Your task to perform on an android device: turn smart compose on in the gmail app Image 0: 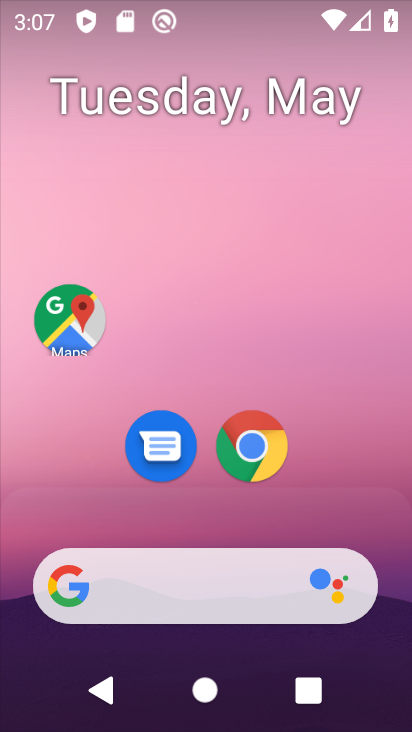
Step 0: drag from (210, 726) to (206, 142)
Your task to perform on an android device: turn smart compose on in the gmail app Image 1: 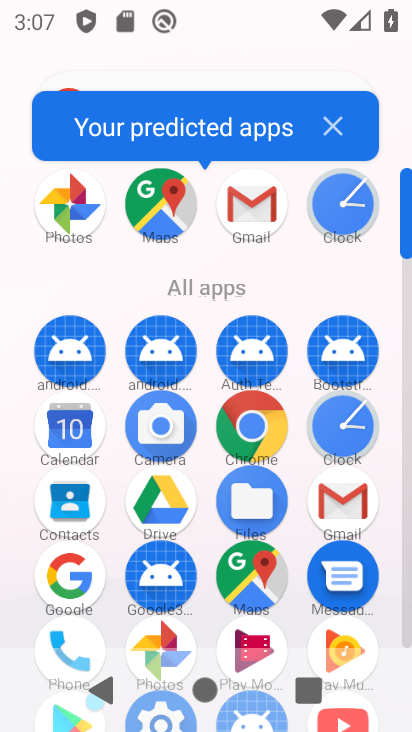
Step 1: click (346, 501)
Your task to perform on an android device: turn smart compose on in the gmail app Image 2: 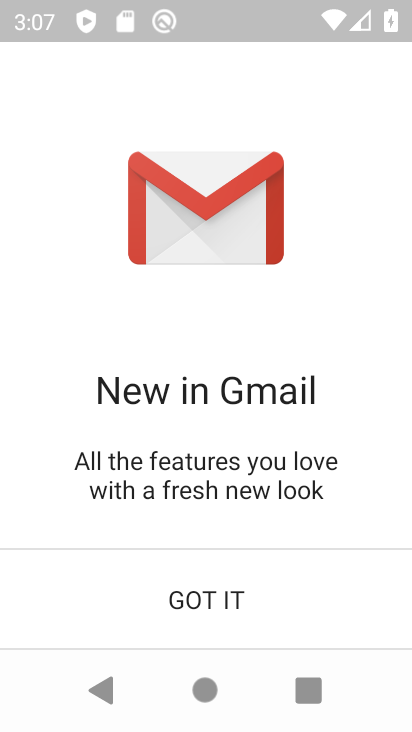
Step 2: click (225, 590)
Your task to perform on an android device: turn smart compose on in the gmail app Image 3: 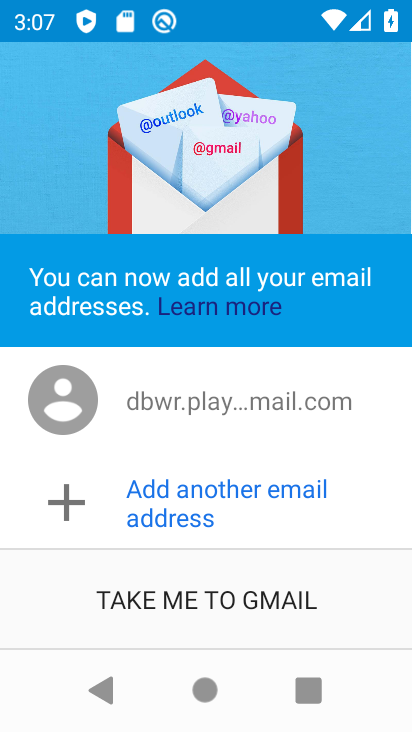
Step 3: click (227, 600)
Your task to perform on an android device: turn smart compose on in the gmail app Image 4: 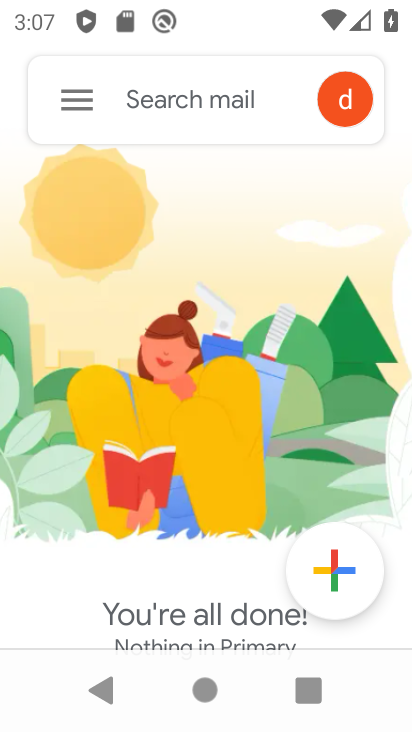
Step 4: click (77, 102)
Your task to perform on an android device: turn smart compose on in the gmail app Image 5: 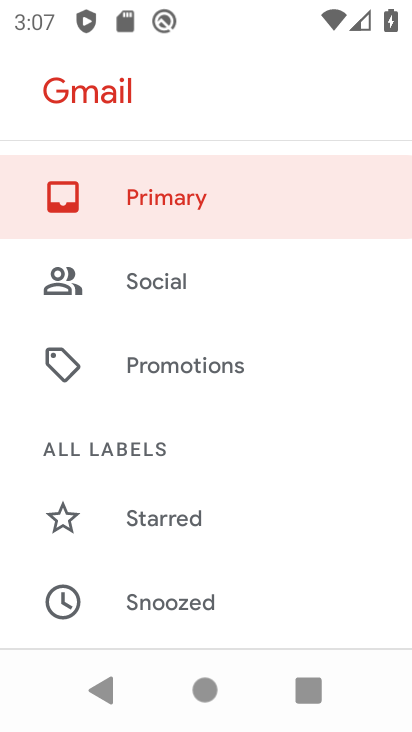
Step 5: drag from (187, 620) to (198, 339)
Your task to perform on an android device: turn smart compose on in the gmail app Image 6: 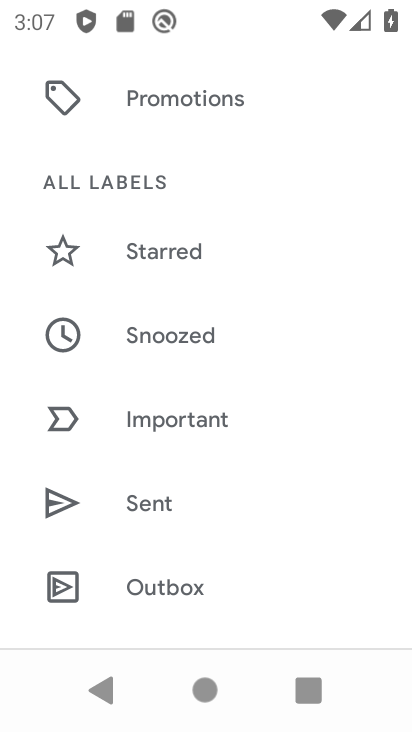
Step 6: drag from (239, 620) to (240, 345)
Your task to perform on an android device: turn smart compose on in the gmail app Image 7: 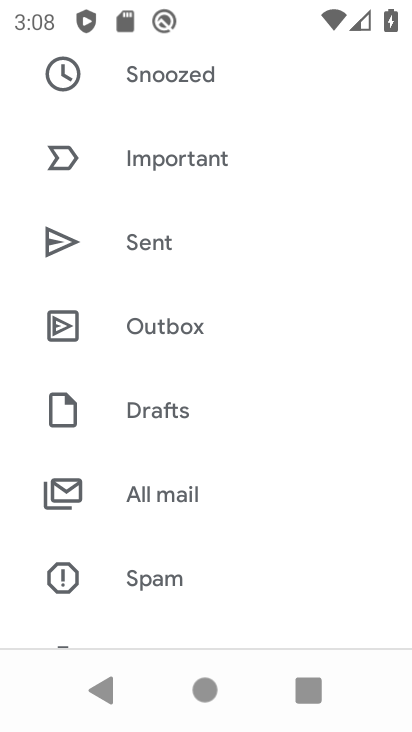
Step 7: drag from (170, 617) to (188, 215)
Your task to perform on an android device: turn smart compose on in the gmail app Image 8: 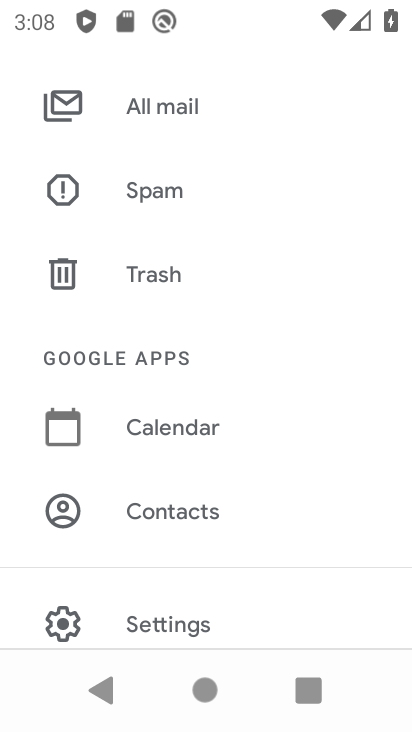
Step 8: click (167, 618)
Your task to perform on an android device: turn smart compose on in the gmail app Image 9: 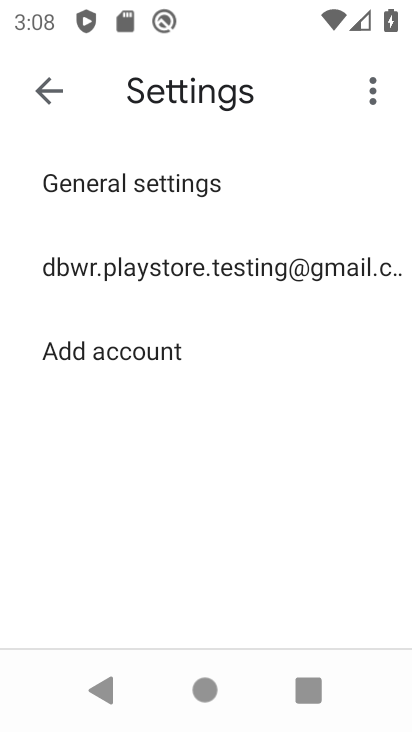
Step 9: click (150, 266)
Your task to perform on an android device: turn smart compose on in the gmail app Image 10: 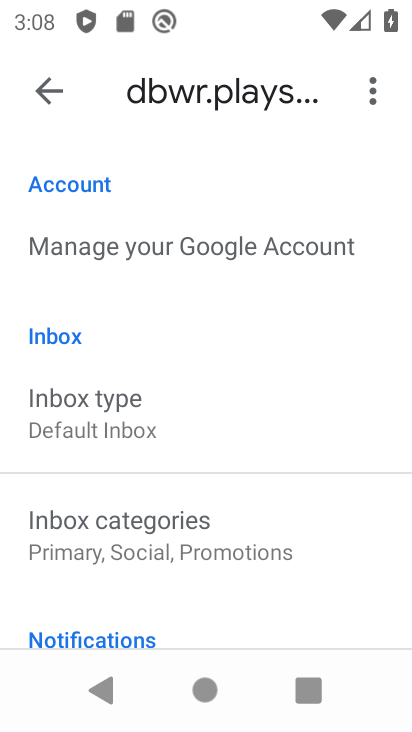
Step 10: task complete